Your task to perform on an android device: toggle wifi Image 0: 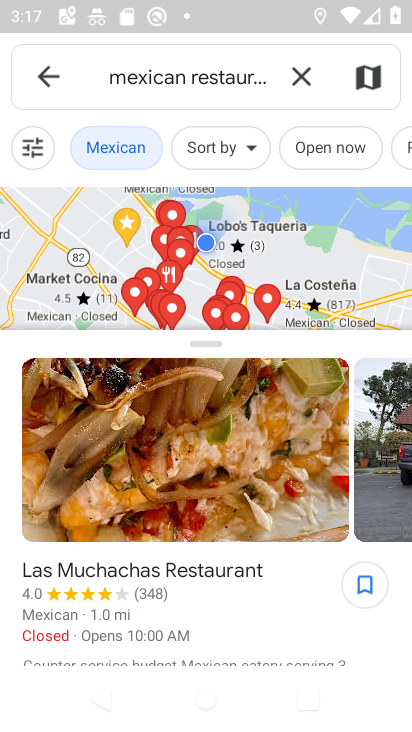
Step 0: press home button
Your task to perform on an android device: toggle wifi Image 1: 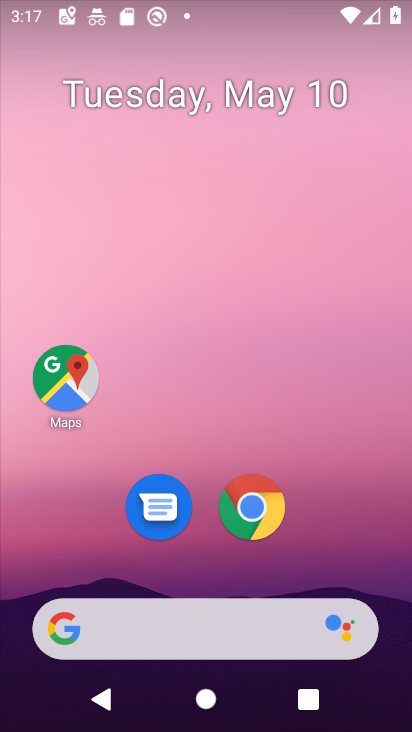
Step 1: drag from (205, 551) to (255, 173)
Your task to perform on an android device: toggle wifi Image 2: 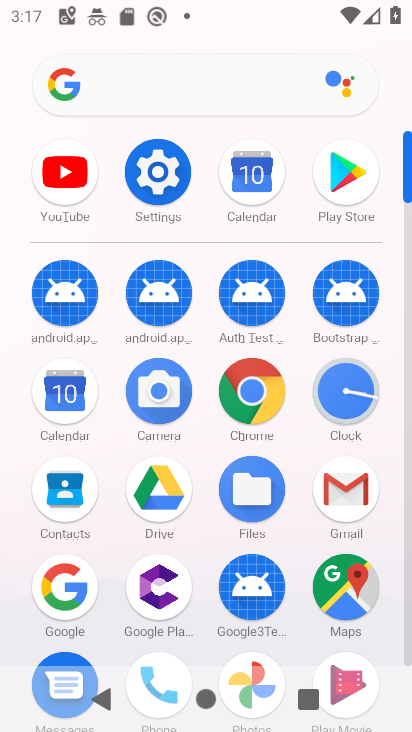
Step 2: click (161, 172)
Your task to perform on an android device: toggle wifi Image 3: 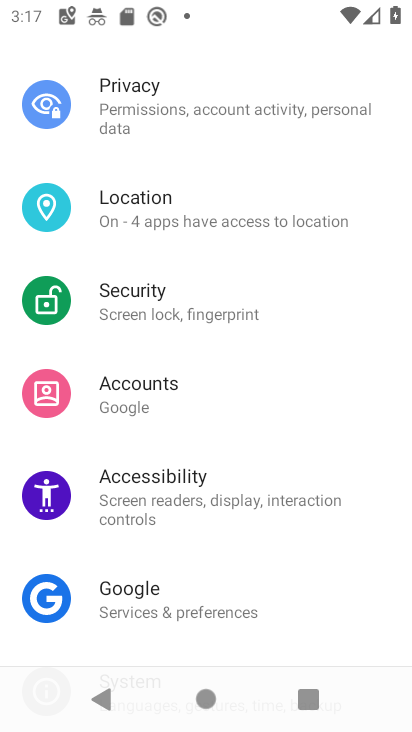
Step 3: drag from (215, 85) to (228, 450)
Your task to perform on an android device: toggle wifi Image 4: 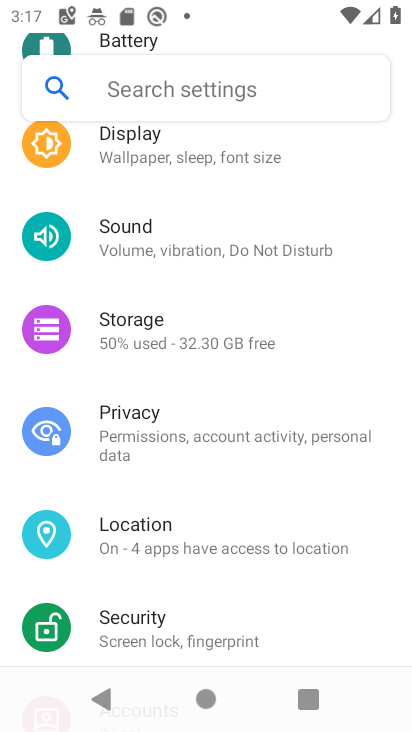
Step 4: drag from (227, 139) to (235, 475)
Your task to perform on an android device: toggle wifi Image 5: 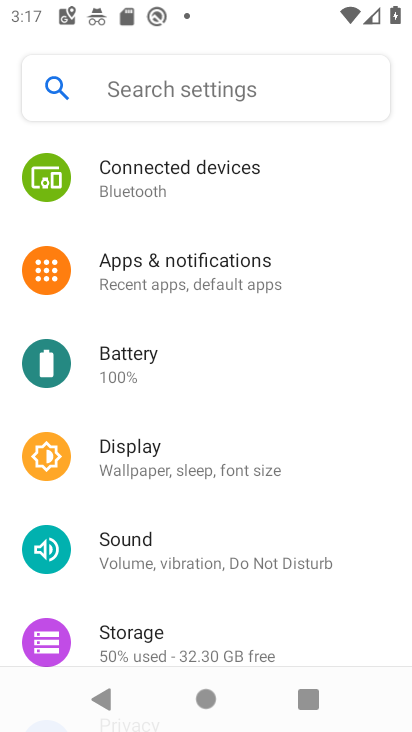
Step 5: drag from (207, 149) to (231, 508)
Your task to perform on an android device: toggle wifi Image 6: 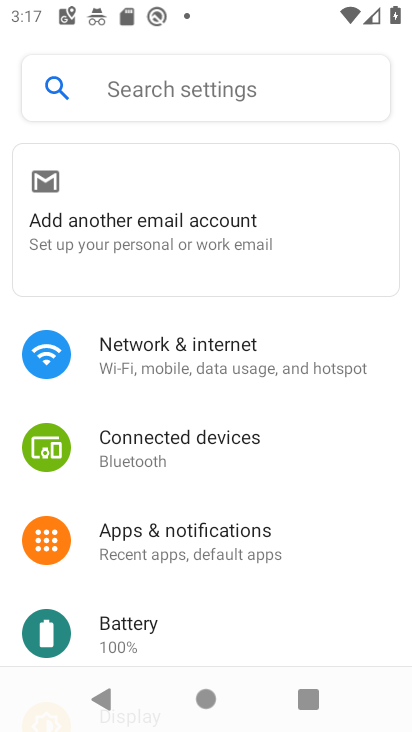
Step 6: click (218, 353)
Your task to perform on an android device: toggle wifi Image 7: 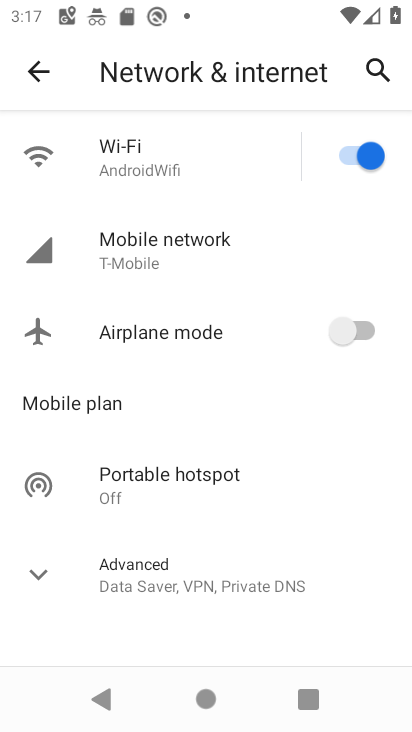
Step 7: click (359, 154)
Your task to perform on an android device: toggle wifi Image 8: 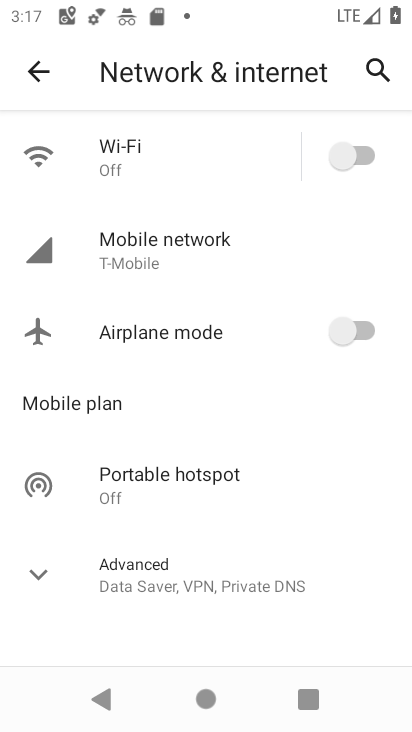
Step 8: task complete